Your task to perform on an android device: toggle notification dots Image 0: 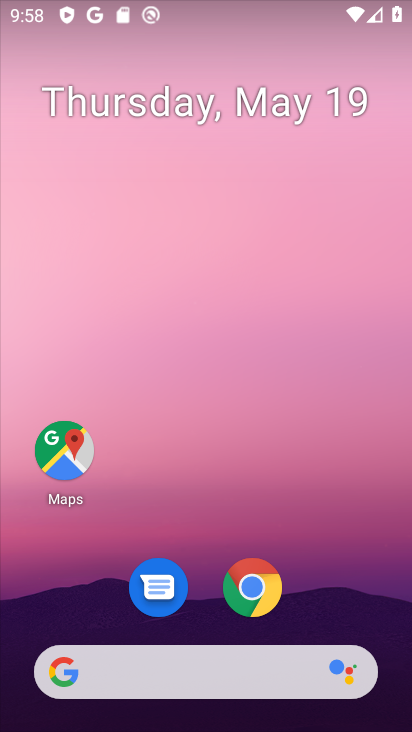
Step 0: drag from (317, 610) to (233, 103)
Your task to perform on an android device: toggle notification dots Image 1: 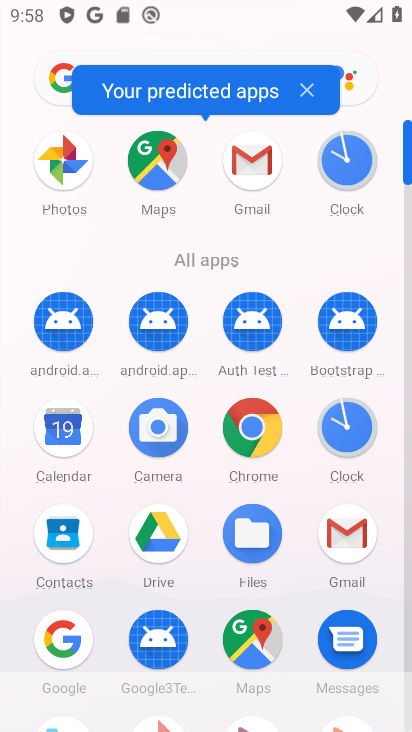
Step 1: click (405, 668)
Your task to perform on an android device: toggle notification dots Image 2: 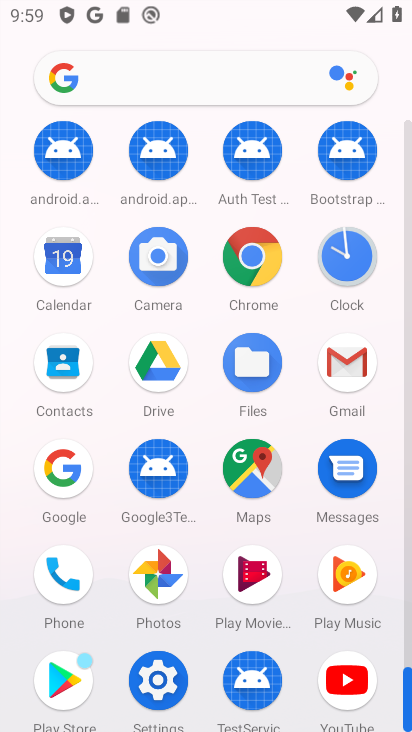
Step 2: click (167, 673)
Your task to perform on an android device: toggle notification dots Image 3: 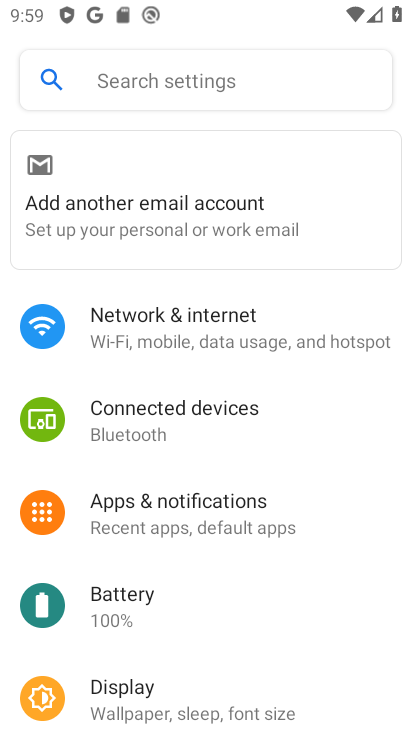
Step 3: click (236, 512)
Your task to perform on an android device: toggle notification dots Image 4: 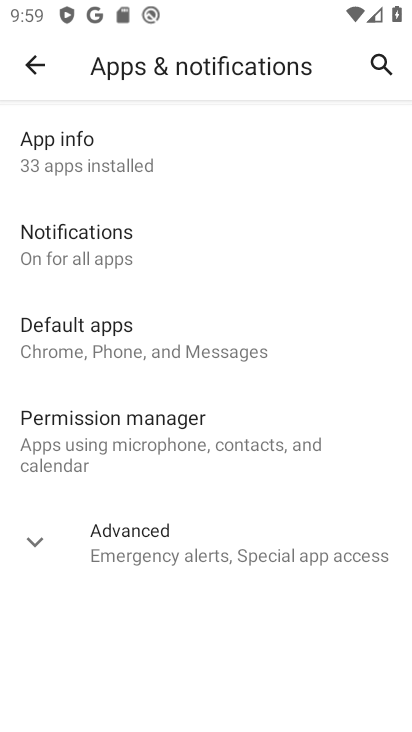
Step 4: click (254, 554)
Your task to perform on an android device: toggle notification dots Image 5: 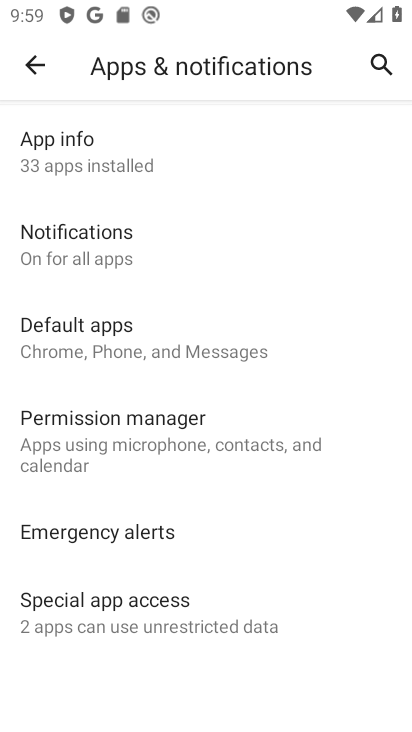
Step 5: drag from (277, 269) to (291, 561)
Your task to perform on an android device: toggle notification dots Image 6: 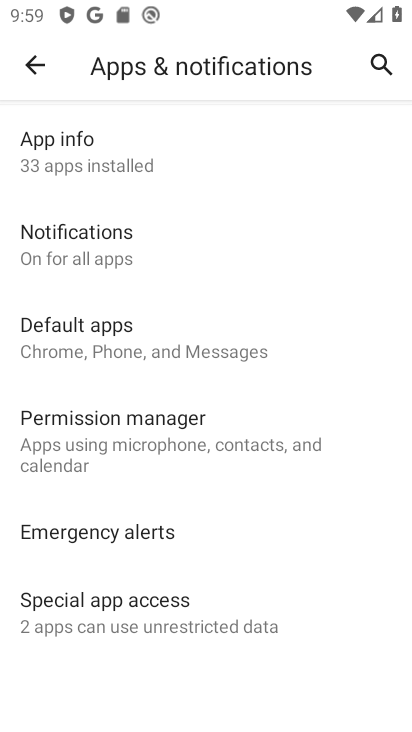
Step 6: click (219, 246)
Your task to perform on an android device: toggle notification dots Image 7: 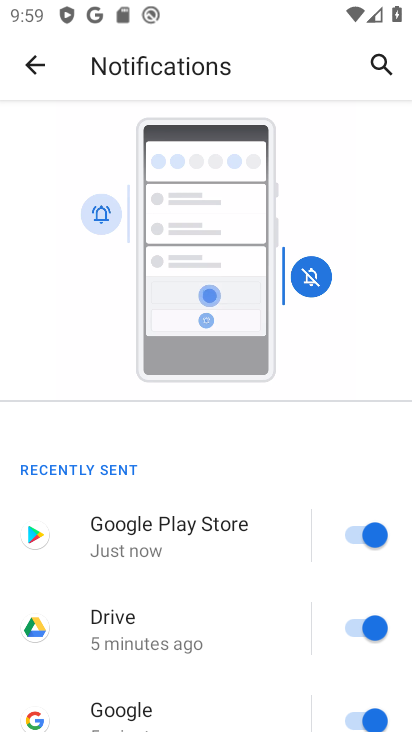
Step 7: drag from (269, 660) to (211, 114)
Your task to perform on an android device: toggle notification dots Image 8: 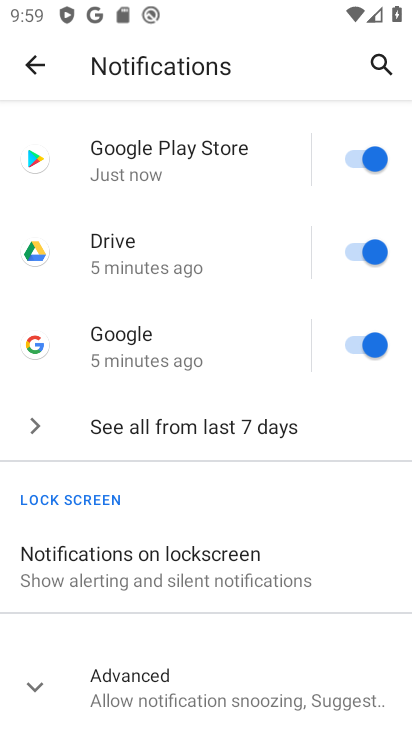
Step 8: drag from (291, 687) to (248, 367)
Your task to perform on an android device: toggle notification dots Image 9: 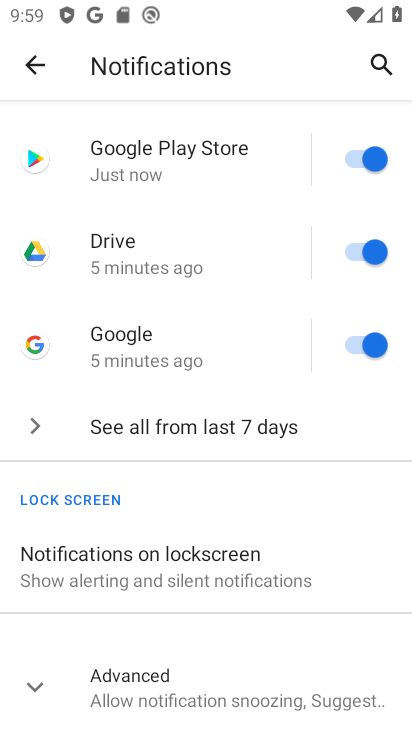
Step 9: click (325, 671)
Your task to perform on an android device: toggle notification dots Image 10: 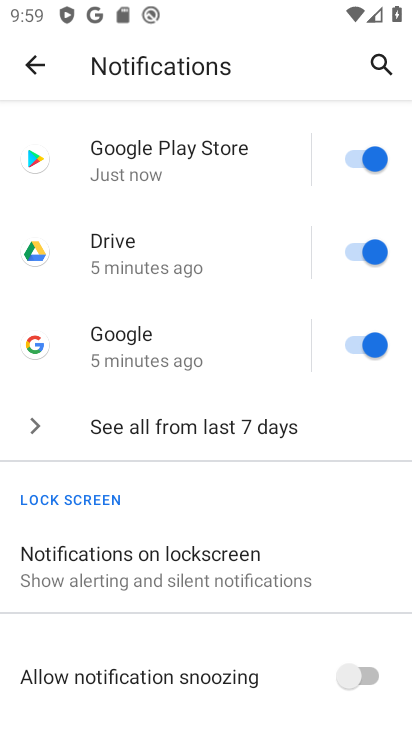
Step 10: drag from (246, 669) to (211, 320)
Your task to perform on an android device: toggle notification dots Image 11: 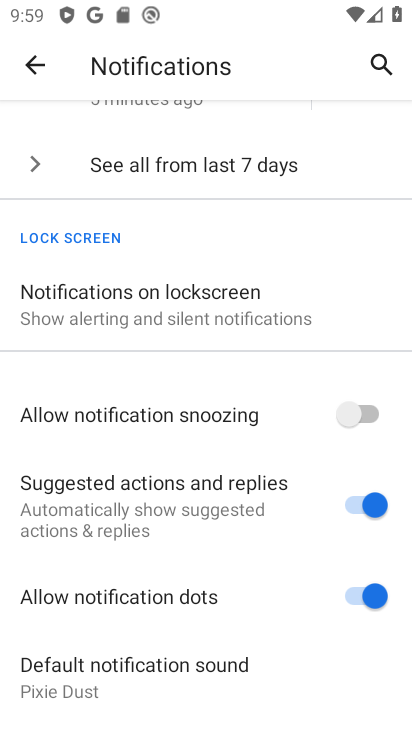
Step 11: click (350, 604)
Your task to perform on an android device: toggle notification dots Image 12: 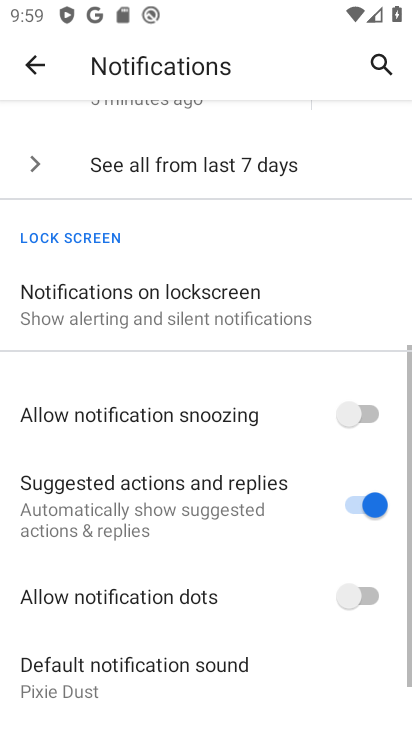
Step 12: task complete